Your task to perform on an android device: Open calendar and show me the fourth week of next month Image 0: 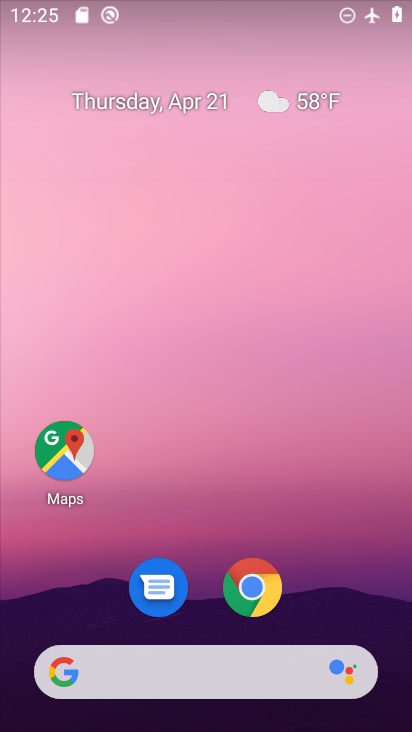
Step 0: drag from (192, 606) to (273, 91)
Your task to perform on an android device: Open calendar and show me the fourth week of next month Image 1: 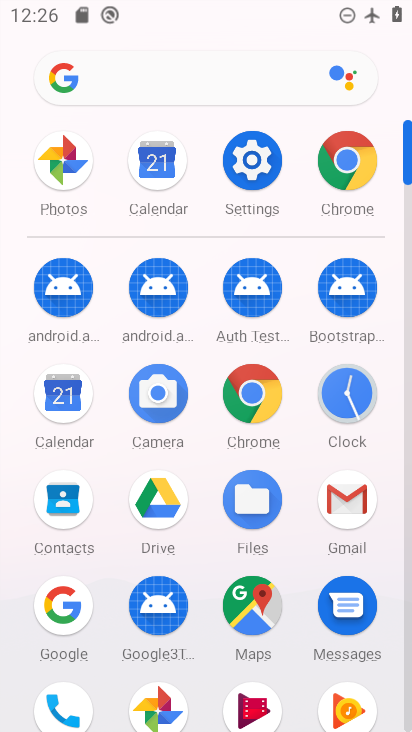
Step 1: click (61, 404)
Your task to perform on an android device: Open calendar and show me the fourth week of next month Image 2: 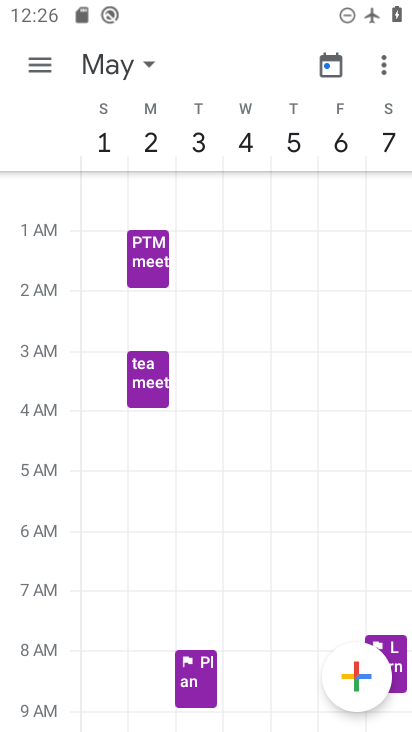
Step 2: task complete